Your task to perform on an android device: turn off notifications in google photos Image 0: 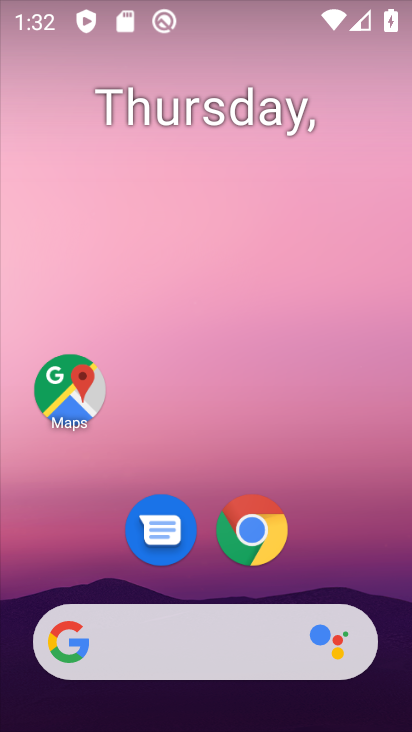
Step 0: drag from (159, 717) to (241, 0)
Your task to perform on an android device: turn off notifications in google photos Image 1: 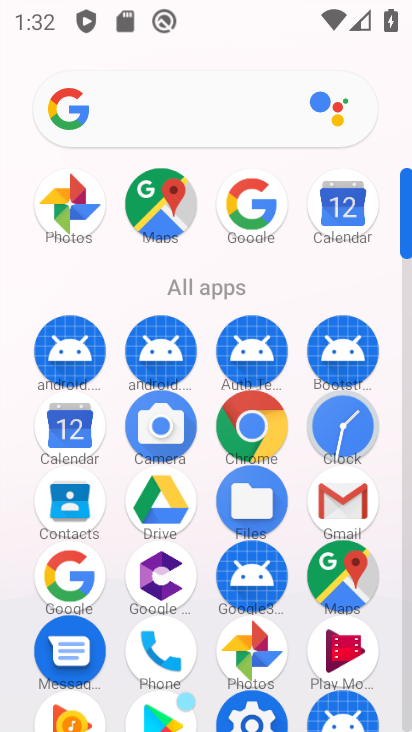
Step 1: click (268, 643)
Your task to perform on an android device: turn off notifications in google photos Image 2: 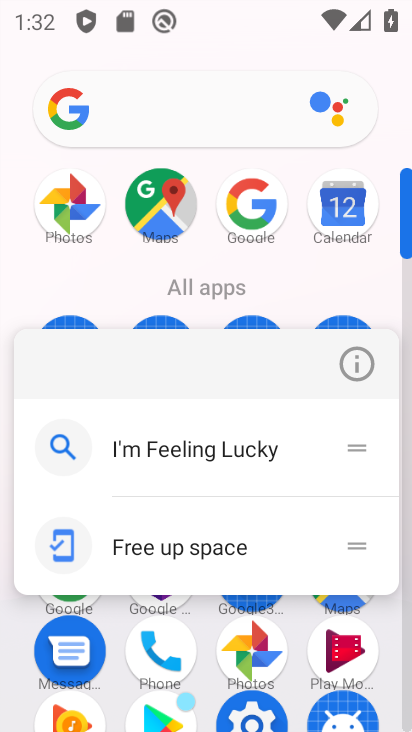
Step 2: click (371, 359)
Your task to perform on an android device: turn off notifications in google photos Image 3: 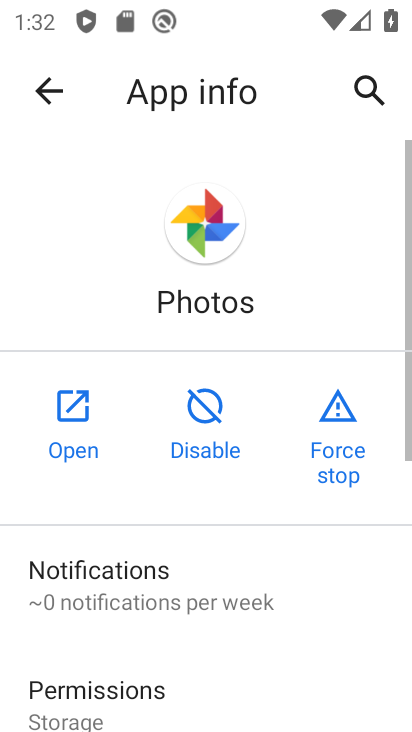
Step 3: drag from (301, 651) to (320, 46)
Your task to perform on an android device: turn off notifications in google photos Image 4: 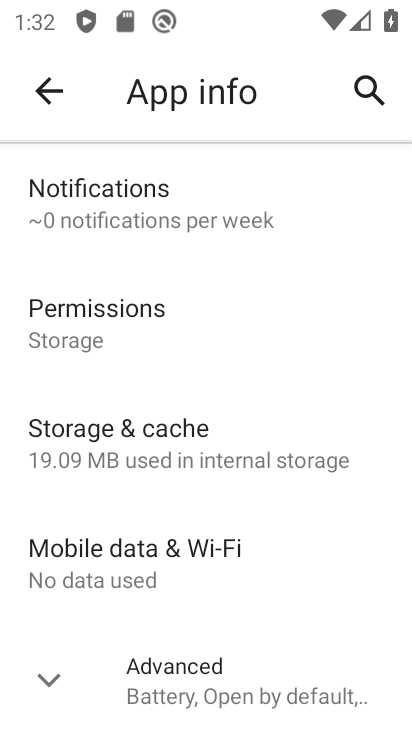
Step 4: click (224, 203)
Your task to perform on an android device: turn off notifications in google photos Image 5: 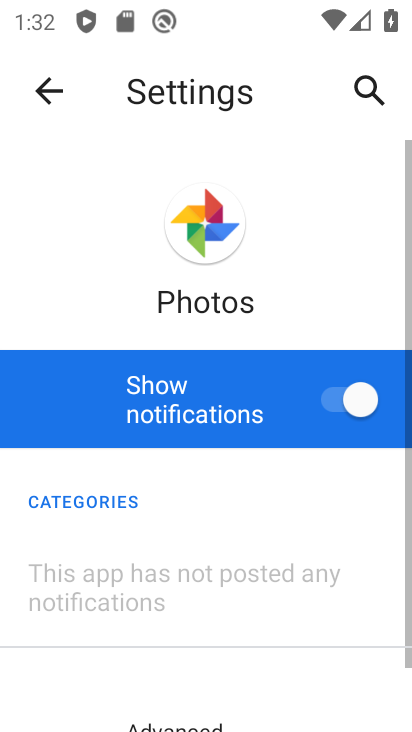
Step 5: click (363, 398)
Your task to perform on an android device: turn off notifications in google photos Image 6: 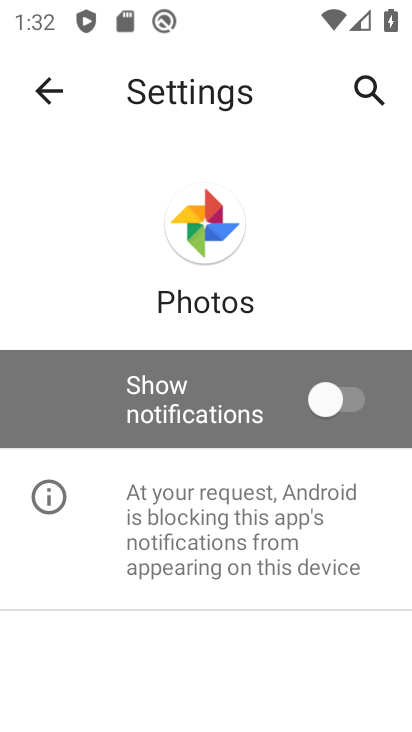
Step 6: task complete